Your task to perform on an android device: Go to Google Image 0: 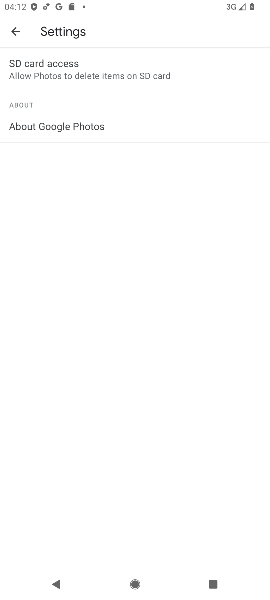
Step 0: press home button
Your task to perform on an android device: Go to Google Image 1: 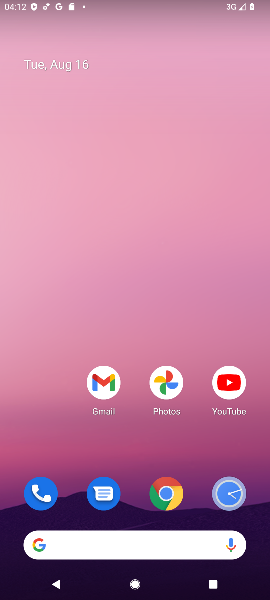
Step 1: drag from (62, 472) to (65, 101)
Your task to perform on an android device: Go to Google Image 2: 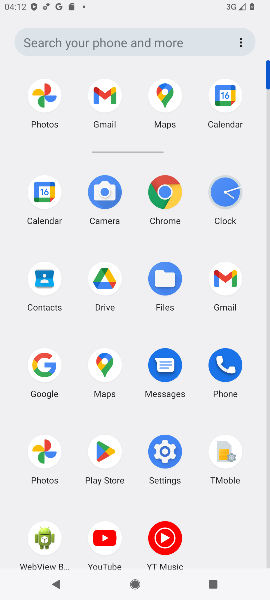
Step 2: click (41, 370)
Your task to perform on an android device: Go to Google Image 3: 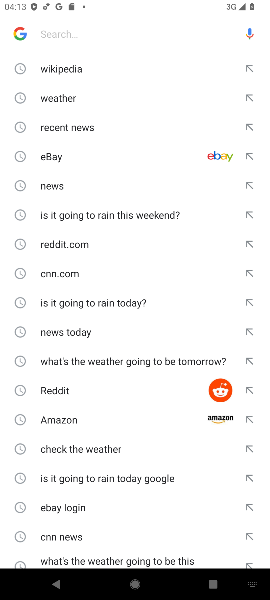
Step 3: task complete